Your task to perform on an android device: add a contact Image 0: 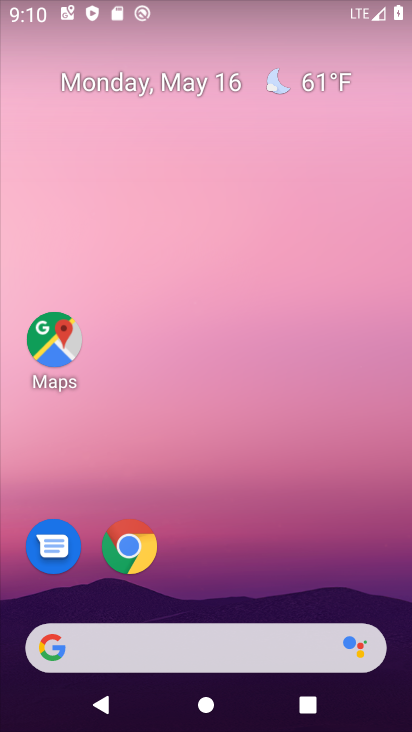
Step 0: drag from (292, 566) to (247, 231)
Your task to perform on an android device: add a contact Image 1: 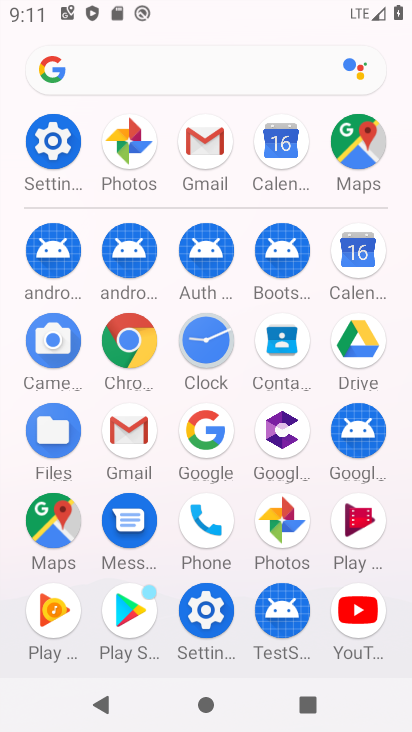
Step 1: click (288, 334)
Your task to perform on an android device: add a contact Image 2: 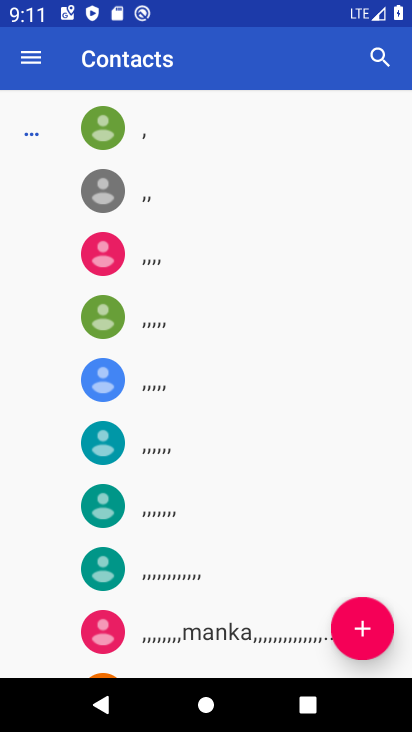
Step 2: click (377, 626)
Your task to perform on an android device: add a contact Image 3: 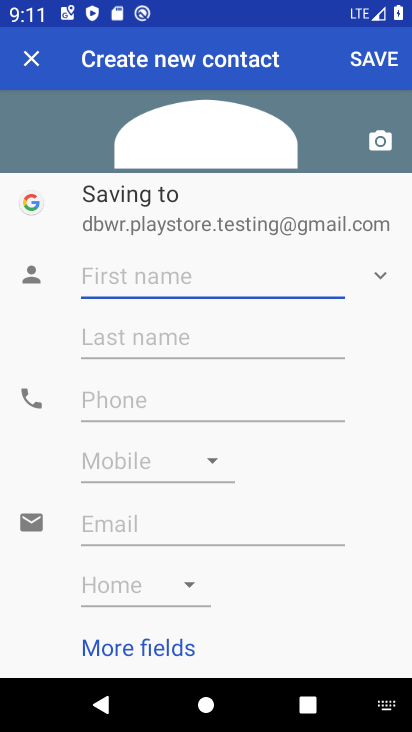
Step 3: type "popo"
Your task to perform on an android device: add a contact Image 4: 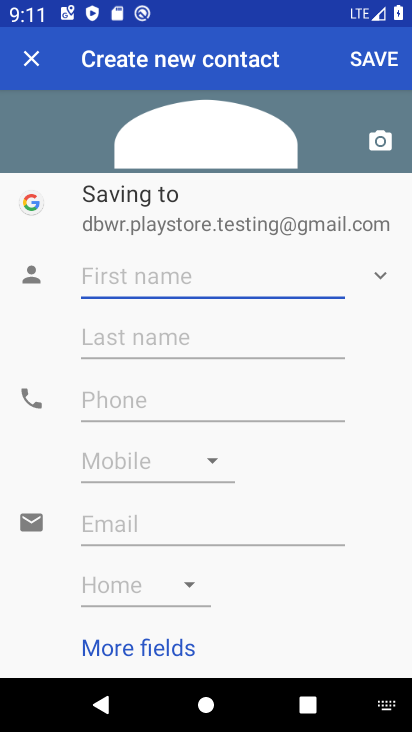
Step 4: click (182, 402)
Your task to perform on an android device: add a contact Image 5: 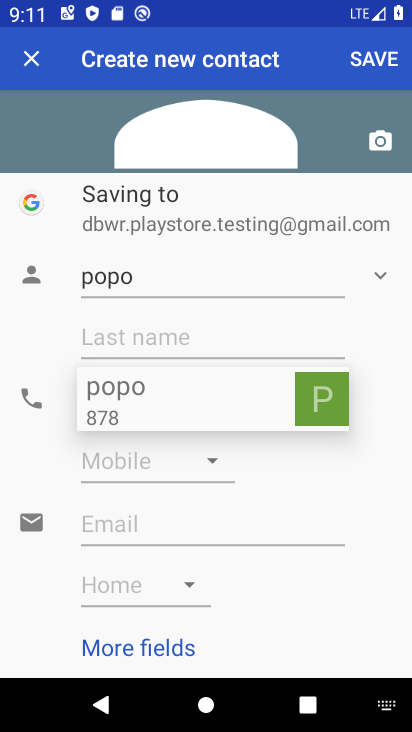
Step 5: type "9900990099"
Your task to perform on an android device: add a contact Image 6: 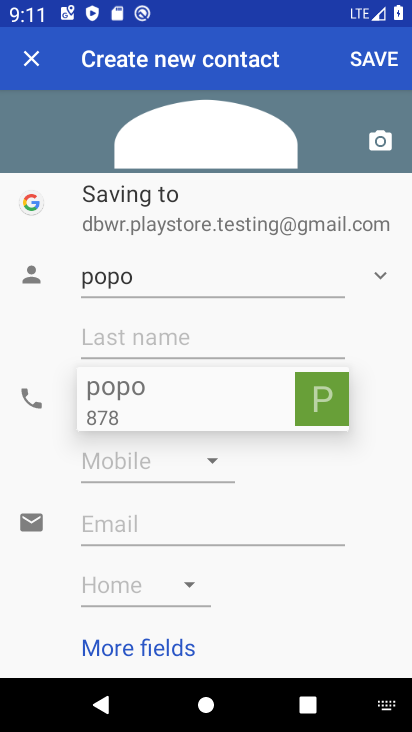
Step 6: click (392, 57)
Your task to perform on an android device: add a contact Image 7: 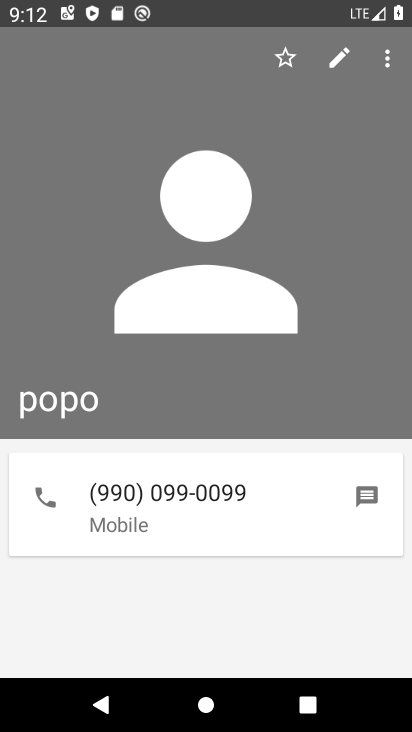
Step 7: task complete